Your task to perform on an android device: turn on data saver in the chrome app Image 0: 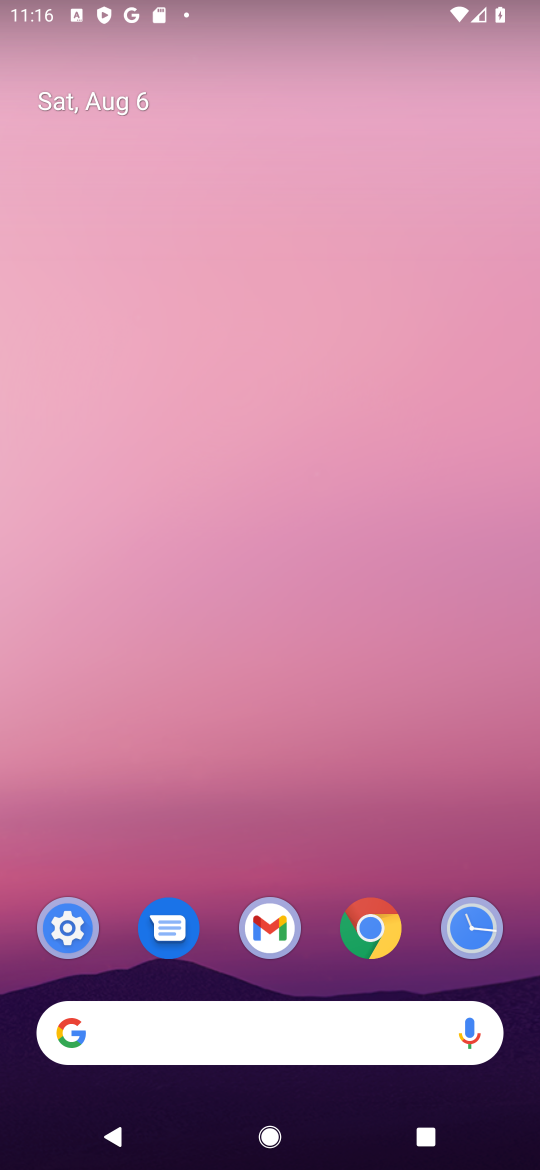
Step 0: click (75, 930)
Your task to perform on an android device: turn on data saver in the chrome app Image 1: 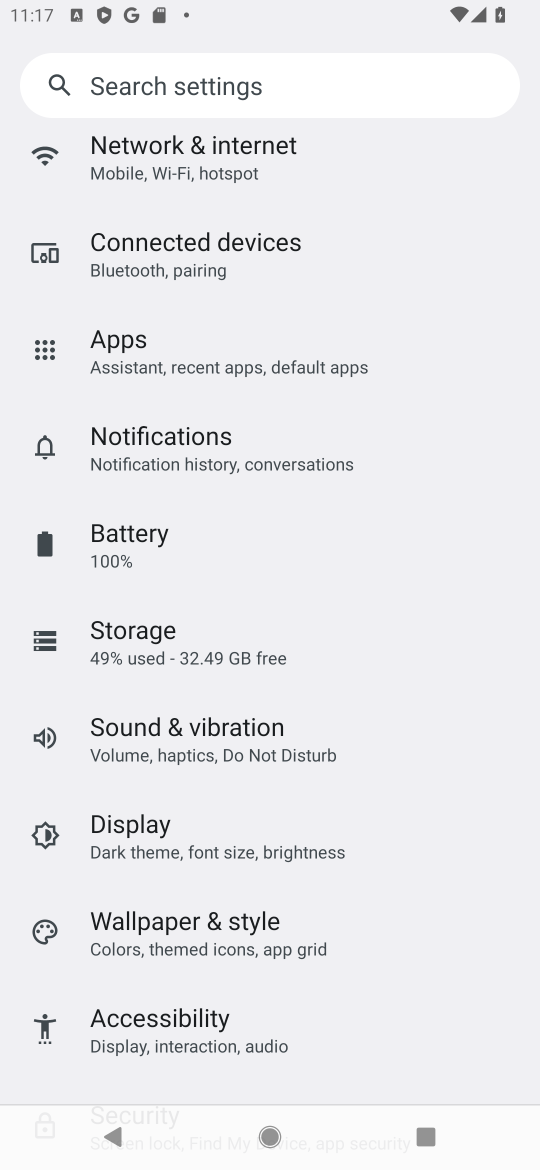
Step 1: press home button
Your task to perform on an android device: turn on data saver in the chrome app Image 2: 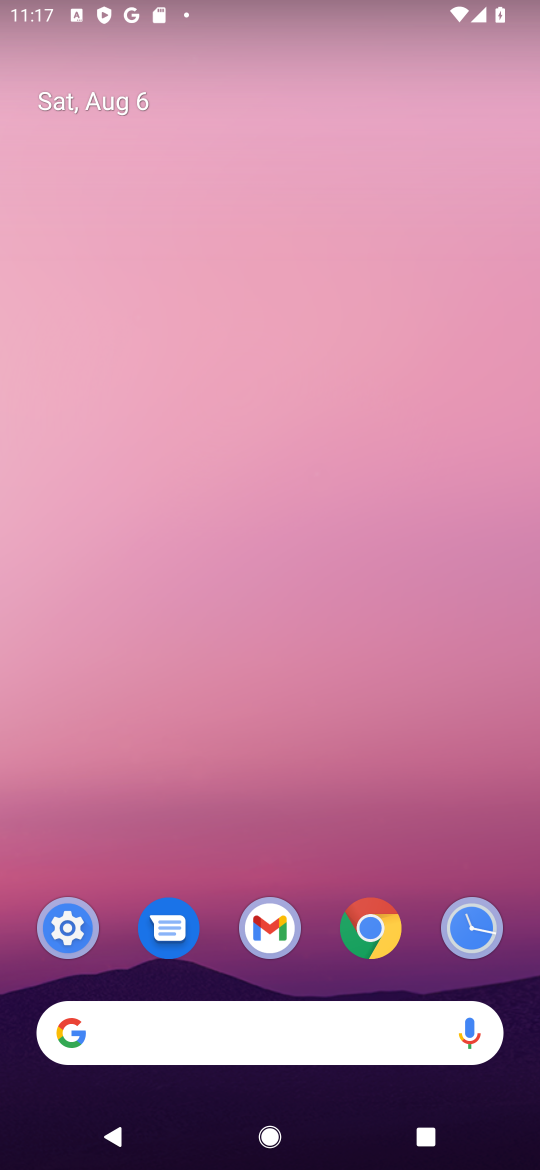
Step 2: click (385, 919)
Your task to perform on an android device: turn on data saver in the chrome app Image 3: 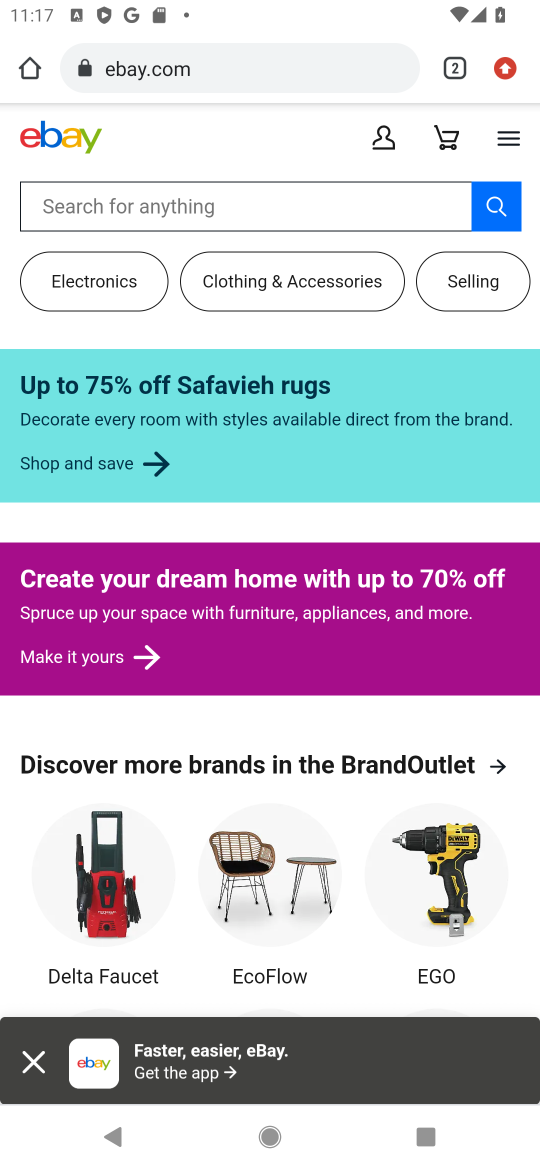
Step 3: click (504, 70)
Your task to perform on an android device: turn on data saver in the chrome app Image 4: 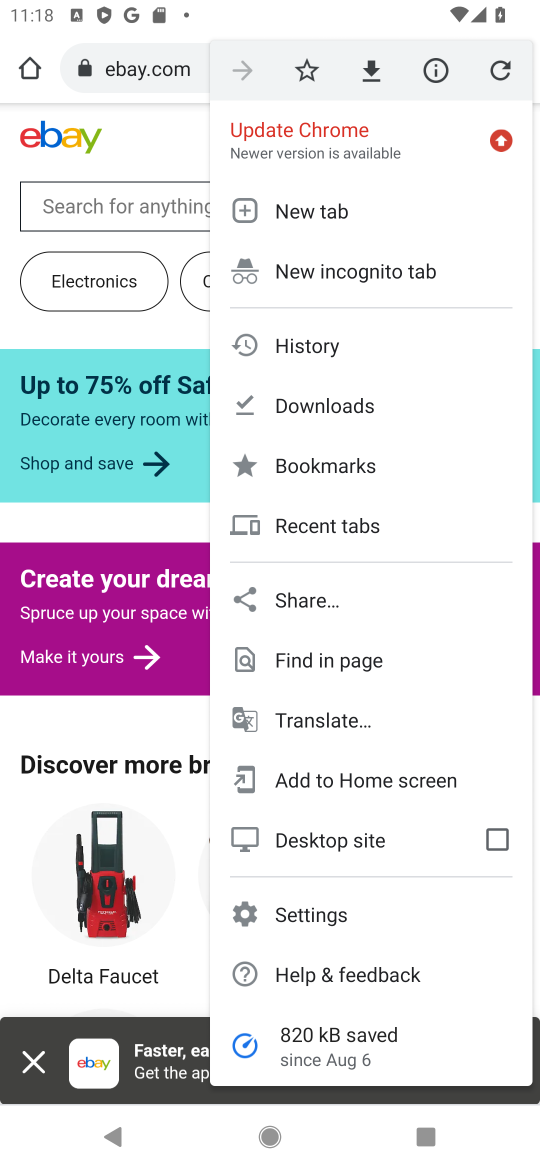
Step 4: click (287, 913)
Your task to perform on an android device: turn on data saver in the chrome app Image 5: 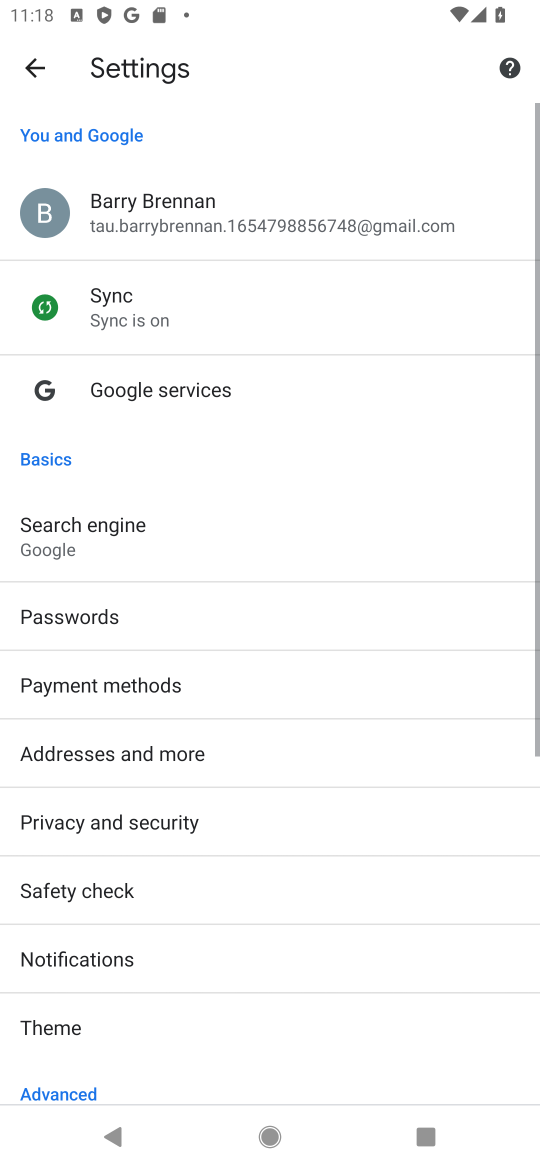
Step 5: task complete